Your task to perform on an android device: check battery use Image 0: 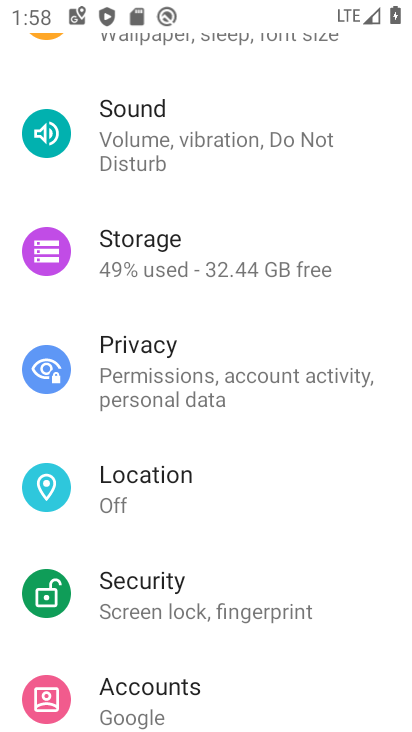
Step 0: drag from (354, 577) to (353, 363)
Your task to perform on an android device: check battery use Image 1: 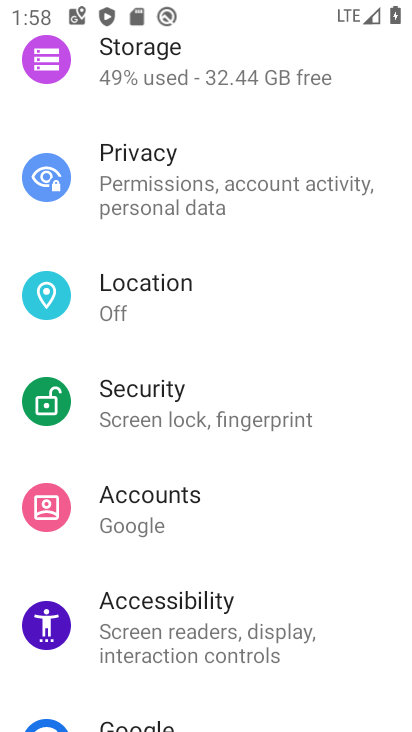
Step 1: drag from (345, 279) to (342, 366)
Your task to perform on an android device: check battery use Image 2: 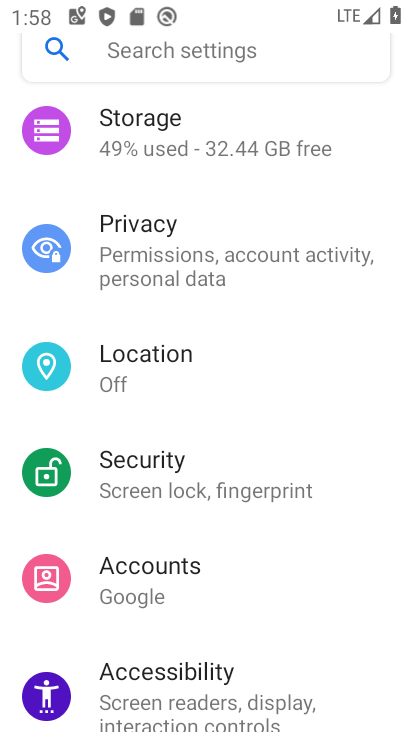
Step 2: drag from (349, 220) to (349, 318)
Your task to perform on an android device: check battery use Image 3: 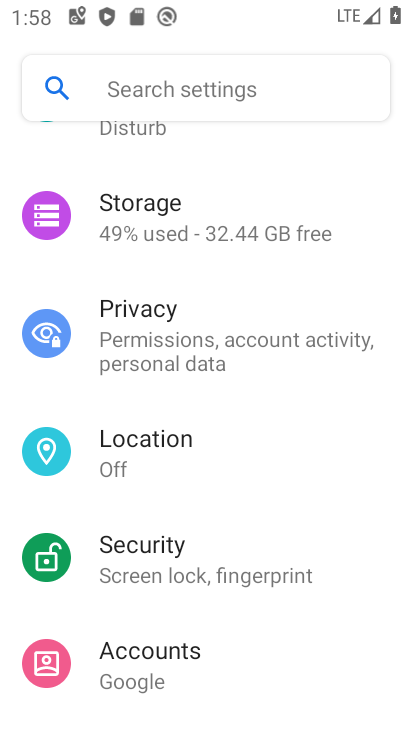
Step 3: drag from (346, 245) to (351, 323)
Your task to perform on an android device: check battery use Image 4: 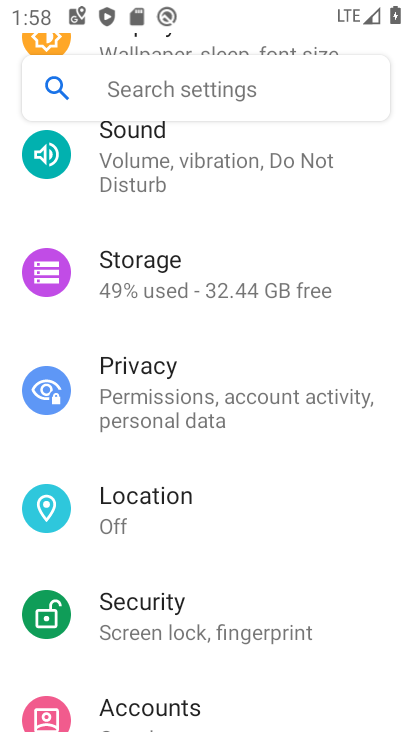
Step 4: drag from (354, 240) to (363, 337)
Your task to perform on an android device: check battery use Image 5: 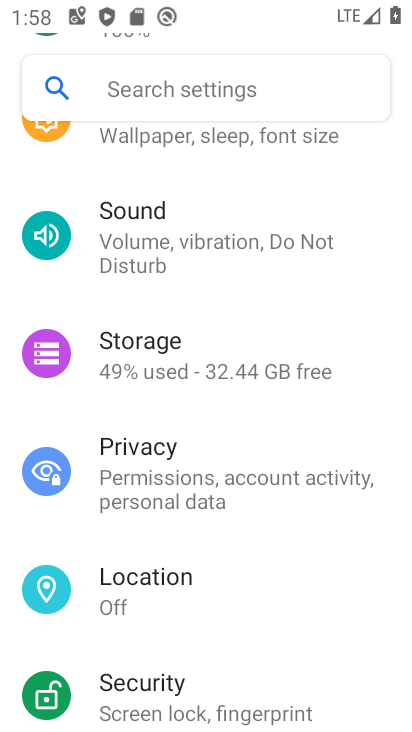
Step 5: drag from (380, 234) to (378, 322)
Your task to perform on an android device: check battery use Image 6: 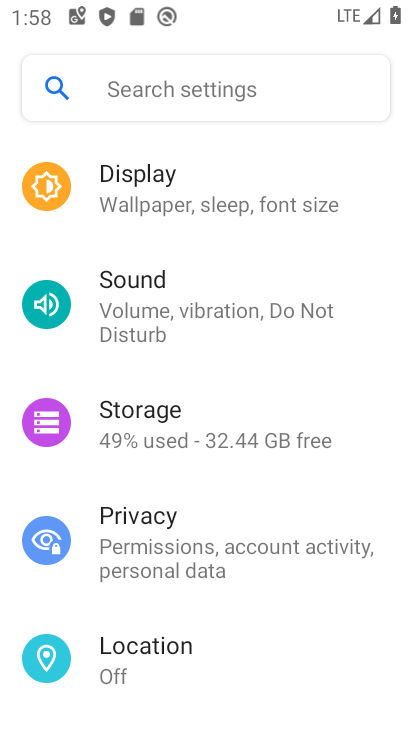
Step 6: drag from (356, 237) to (356, 323)
Your task to perform on an android device: check battery use Image 7: 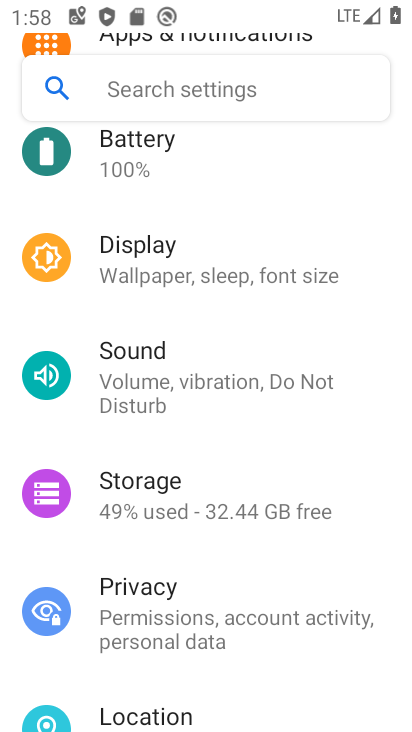
Step 7: drag from (355, 246) to (355, 334)
Your task to perform on an android device: check battery use Image 8: 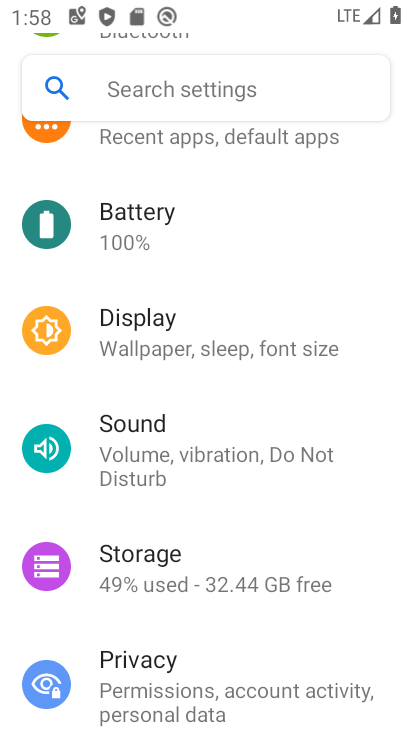
Step 8: drag from (351, 232) to (359, 341)
Your task to perform on an android device: check battery use Image 9: 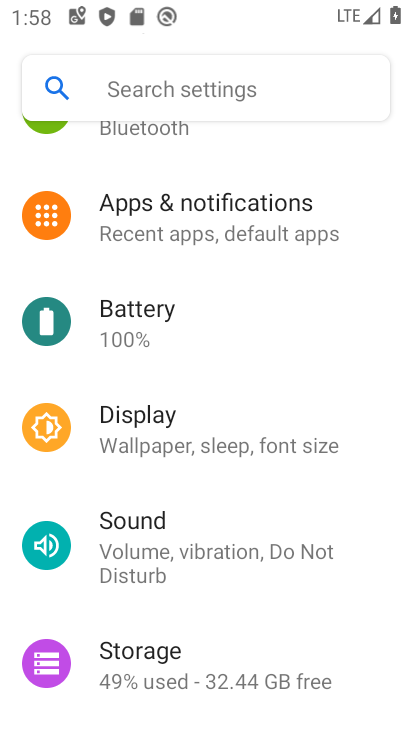
Step 9: drag from (354, 270) to (355, 382)
Your task to perform on an android device: check battery use Image 10: 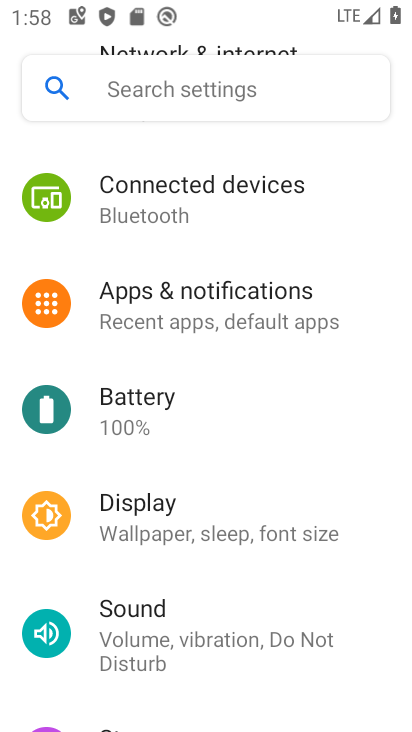
Step 10: click (230, 437)
Your task to perform on an android device: check battery use Image 11: 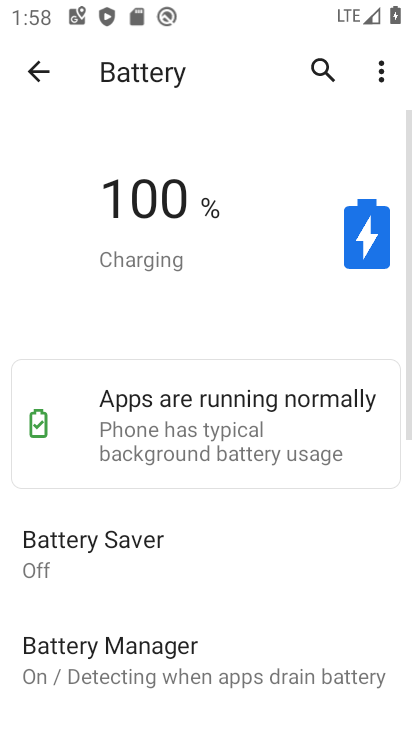
Step 11: click (384, 82)
Your task to perform on an android device: check battery use Image 12: 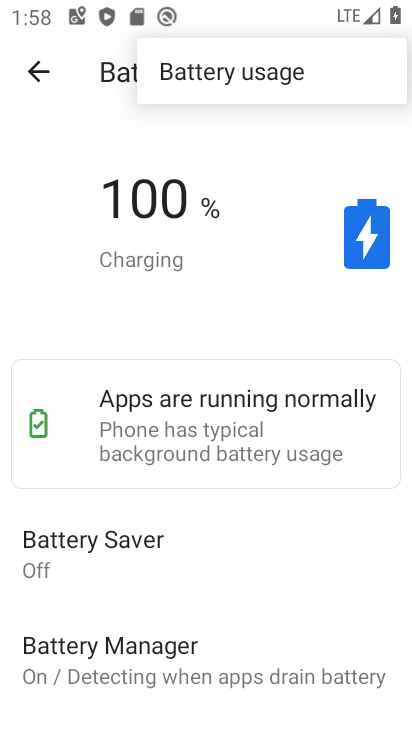
Step 12: click (339, 80)
Your task to perform on an android device: check battery use Image 13: 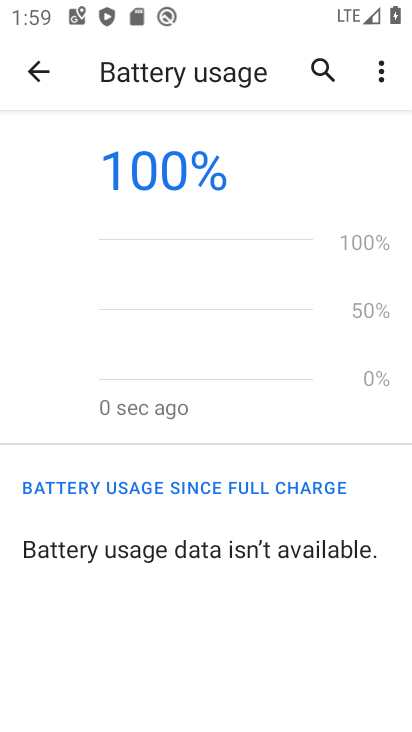
Step 13: task complete